Your task to perform on an android device: Search for pizza restaurants on Maps Image 0: 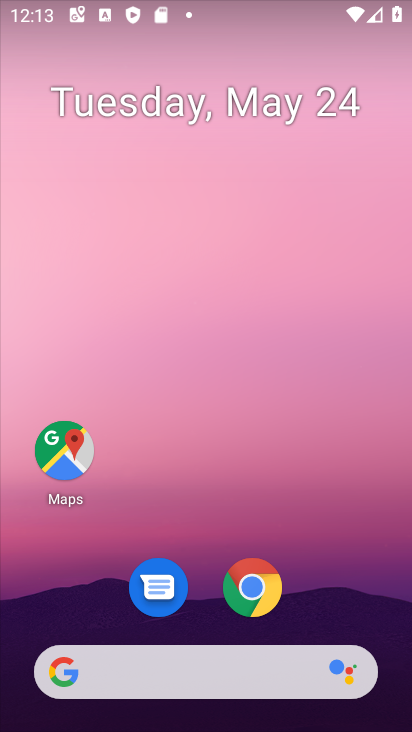
Step 0: click (75, 454)
Your task to perform on an android device: Search for pizza restaurants on Maps Image 1: 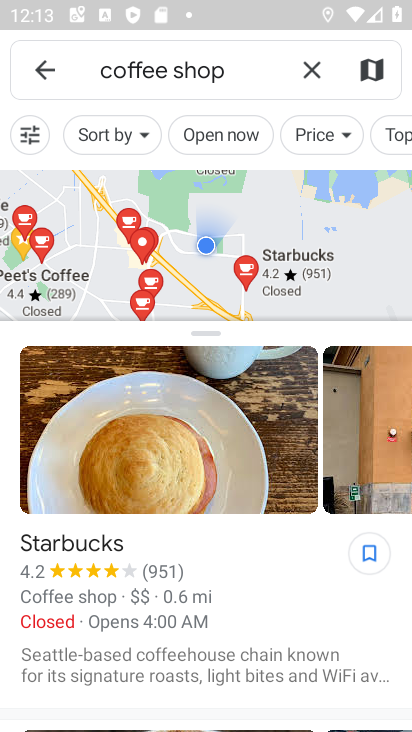
Step 1: click (310, 72)
Your task to perform on an android device: Search for pizza restaurants on Maps Image 2: 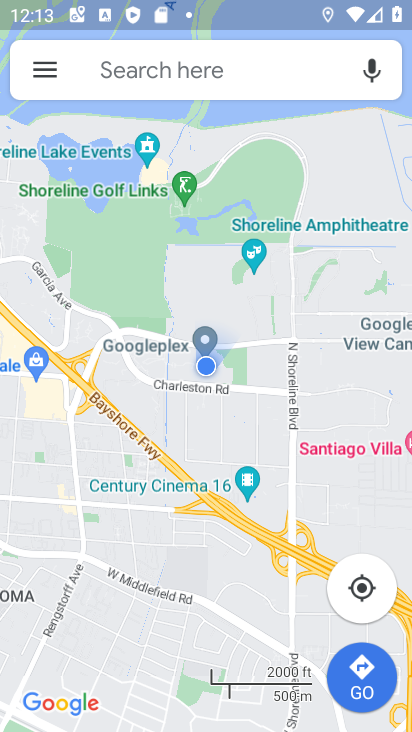
Step 2: click (265, 75)
Your task to perform on an android device: Search for pizza restaurants on Maps Image 3: 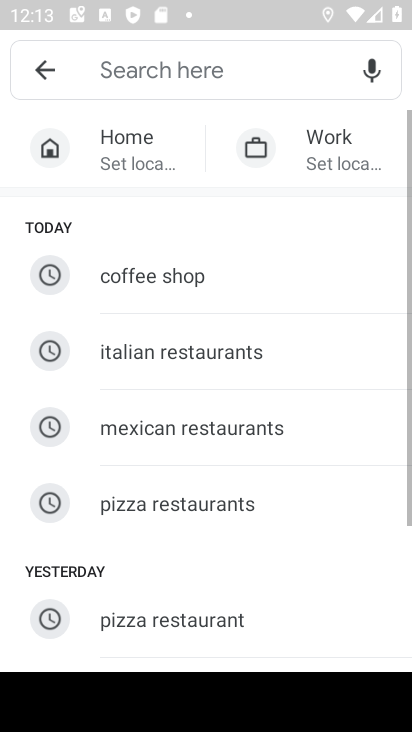
Step 3: click (80, 507)
Your task to perform on an android device: Search for pizza restaurants on Maps Image 4: 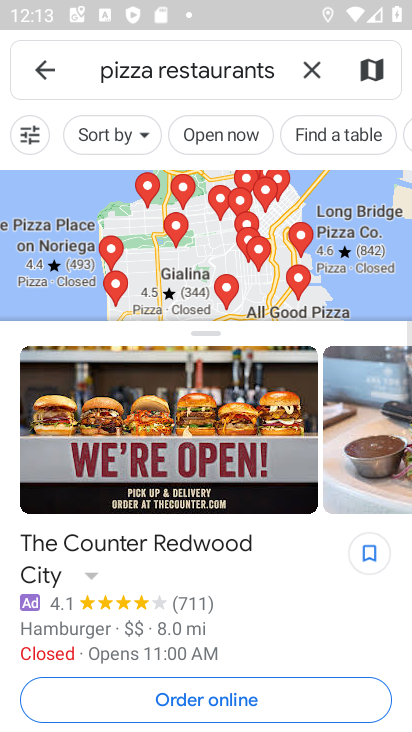
Step 4: task complete